Your task to perform on an android device: Open calendar and show me the third week of next month Image 0: 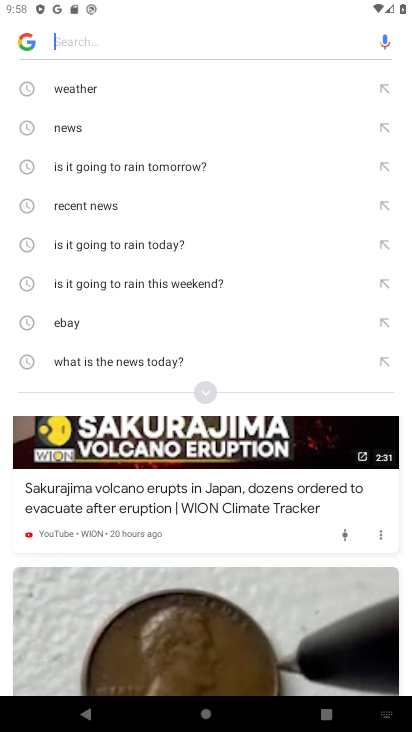
Step 0: press home button
Your task to perform on an android device: Open calendar and show me the third week of next month Image 1: 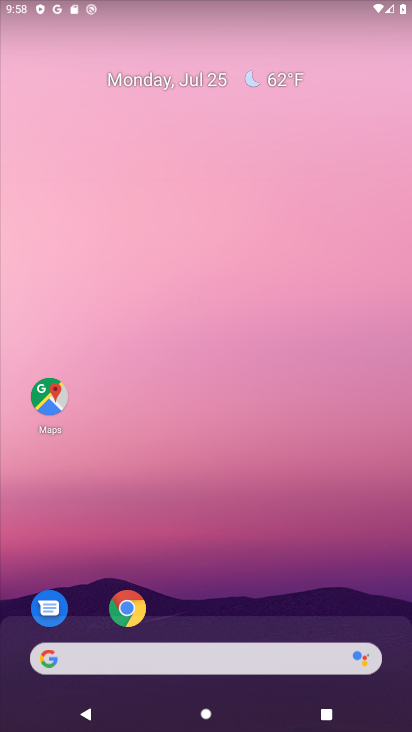
Step 1: drag from (290, 466) to (352, 195)
Your task to perform on an android device: Open calendar and show me the third week of next month Image 2: 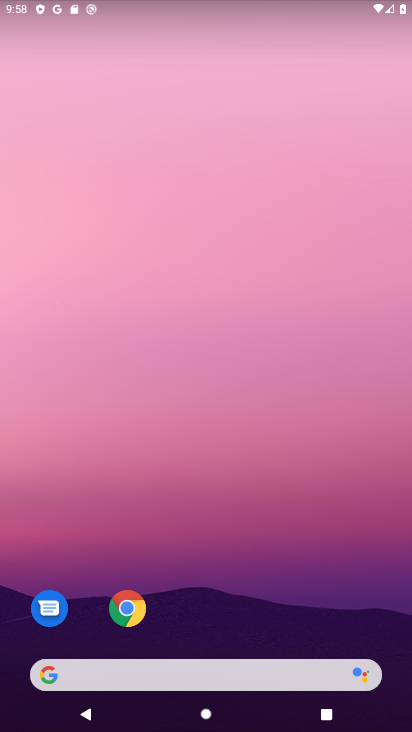
Step 2: drag from (264, 600) to (290, 262)
Your task to perform on an android device: Open calendar and show me the third week of next month Image 3: 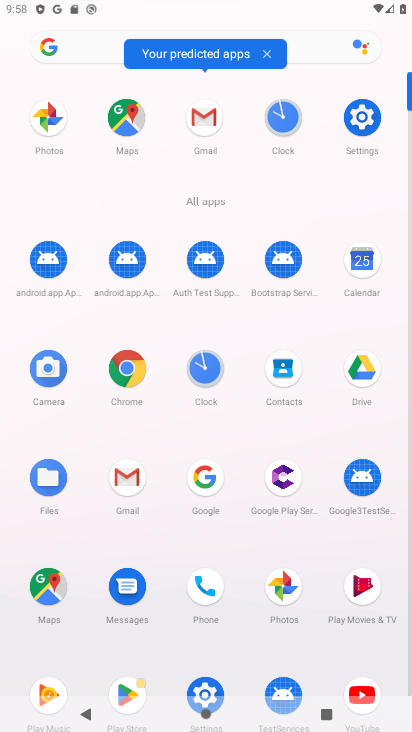
Step 3: click (356, 261)
Your task to perform on an android device: Open calendar and show me the third week of next month Image 4: 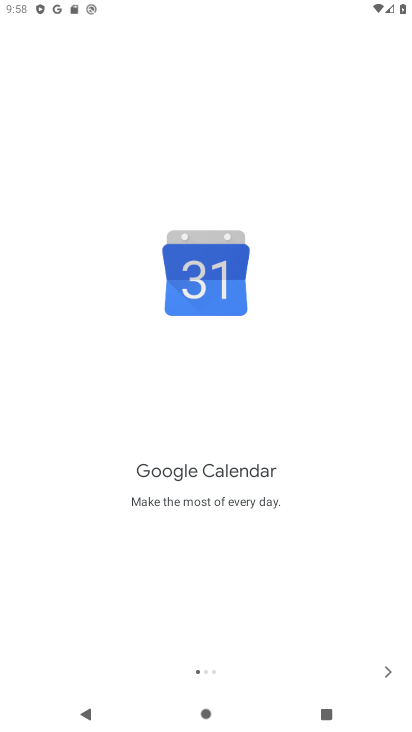
Step 4: click (382, 672)
Your task to perform on an android device: Open calendar and show me the third week of next month Image 5: 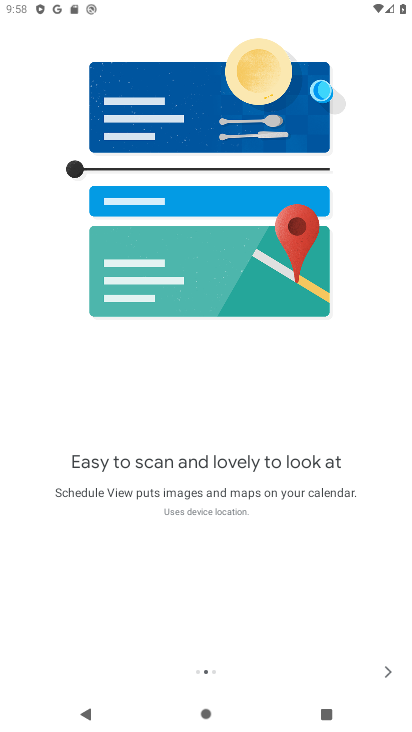
Step 5: click (382, 672)
Your task to perform on an android device: Open calendar and show me the third week of next month Image 6: 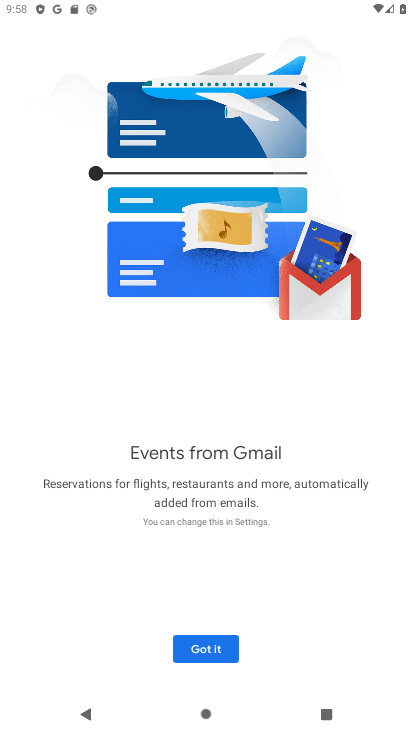
Step 6: click (382, 672)
Your task to perform on an android device: Open calendar and show me the third week of next month Image 7: 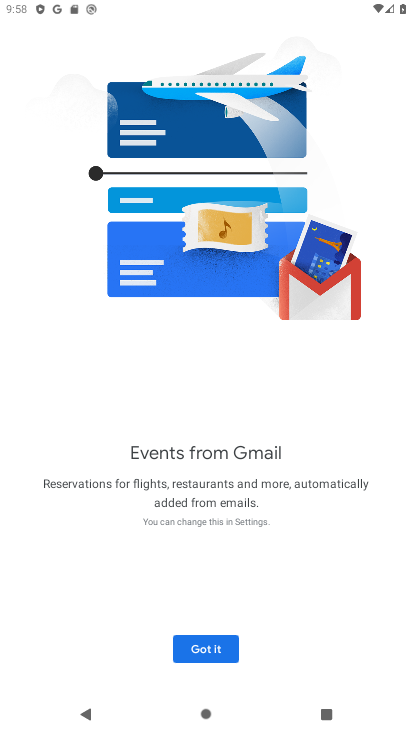
Step 7: click (224, 648)
Your task to perform on an android device: Open calendar and show me the third week of next month Image 8: 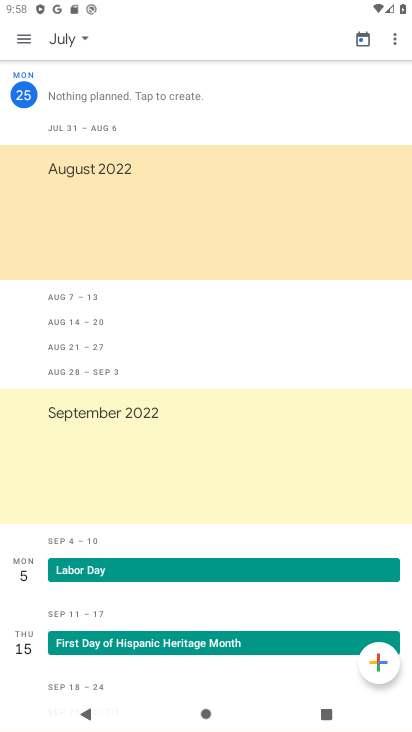
Step 8: task complete